Your task to perform on an android device: uninstall "Lyft - Rideshare, Bikes, Scooters & Transit" Image 0: 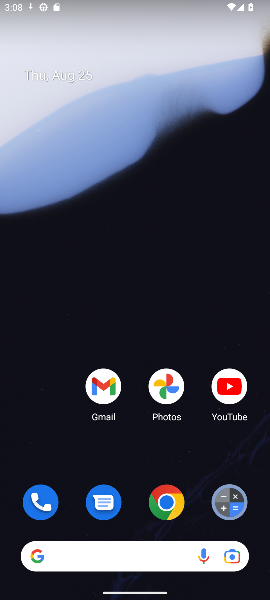
Step 0: drag from (138, 531) to (112, 37)
Your task to perform on an android device: uninstall "Lyft - Rideshare, Bikes, Scooters & Transit" Image 1: 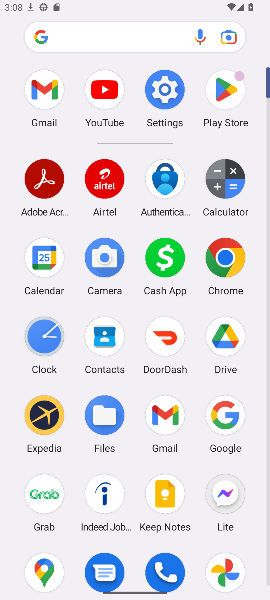
Step 1: click (221, 100)
Your task to perform on an android device: uninstall "Lyft - Rideshare, Bikes, Scooters & Transit" Image 2: 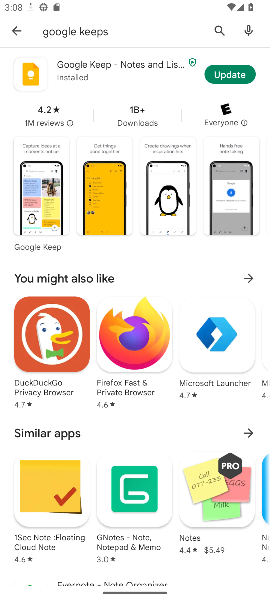
Step 2: click (222, 34)
Your task to perform on an android device: uninstall "Lyft - Rideshare, Bikes, Scooters & Transit" Image 3: 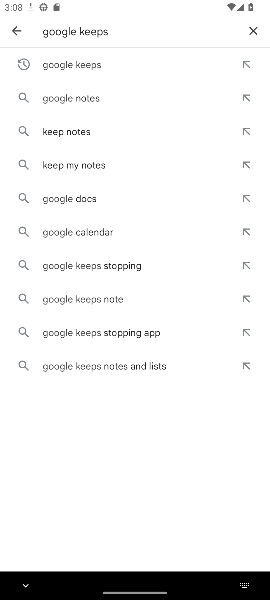
Step 3: click (251, 33)
Your task to perform on an android device: uninstall "Lyft - Rideshare, Bikes, Scooters & Transit" Image 4: 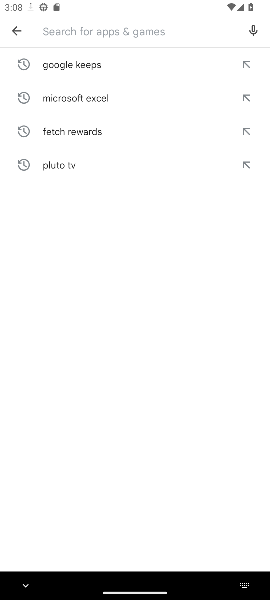
Step 4: type "lyft"
Your task to perform on an android device: uninstall "Lyft - Rideshare, Bikes, Scooters & Transit" Image 5: 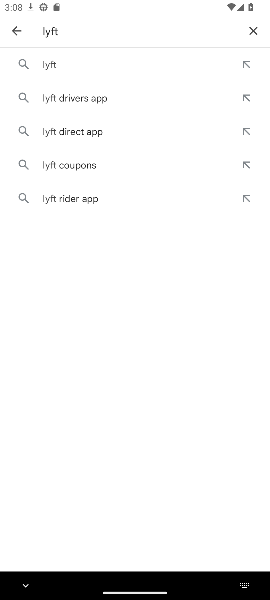
Step 5: click (122, 57)
Your task to perform on an android device: uninstall "Lyft - Rideshare, Bikes, Scooters & Transit" Image 6: 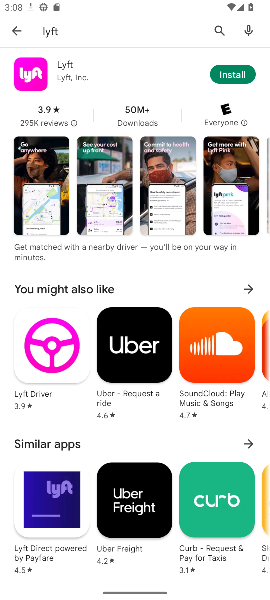
Step 6: click (217, 76)
Your task to perform on an android device: uninstall "Lyft - Rideshare, Bikes, Scooters & Transit" Image 7: 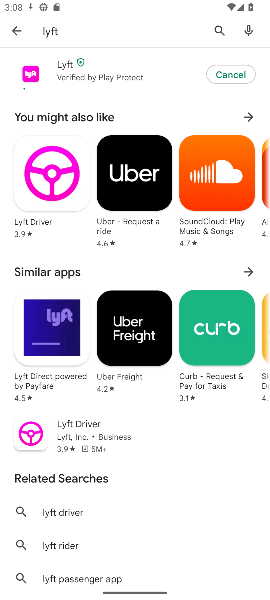
Step 7: task complete